Your task to perform on an android device: What's on my calendar tomorrow? Image 0: 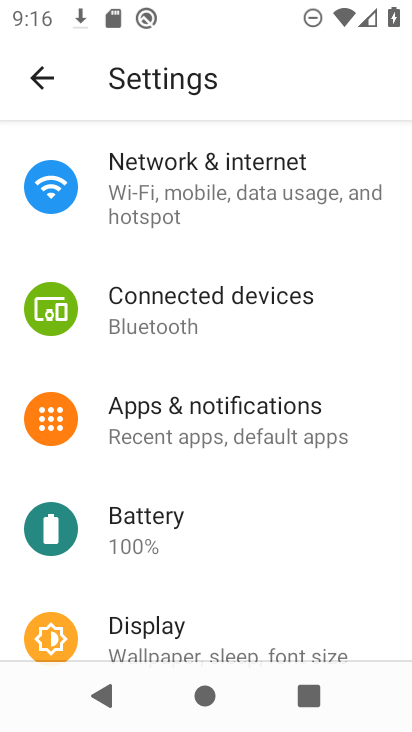
Step 0: press home button
Your task to perform on an android device: What's on my calendar tomorrow? Image 1: 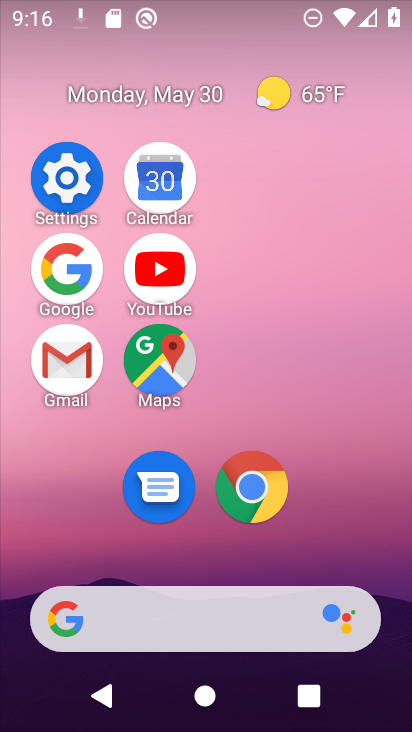
Step 1: click (151, 195)
Your task to perform on an android device: What's on my calendar tomorrow? Image 2: 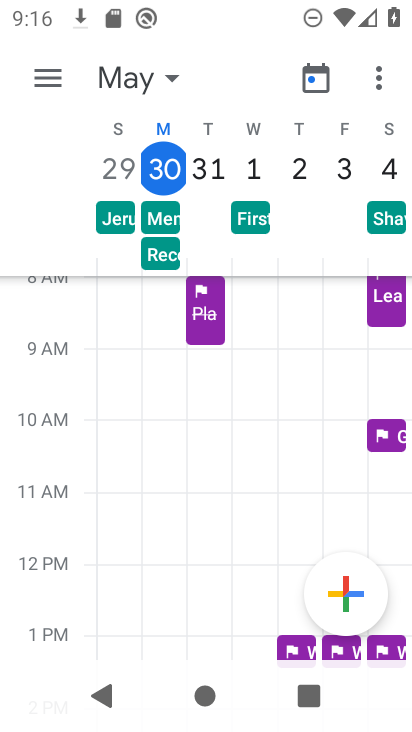
Step 2: click (215, 184)
Your task to perform on an android device: What's on my calendar tomorrow? Image 3: 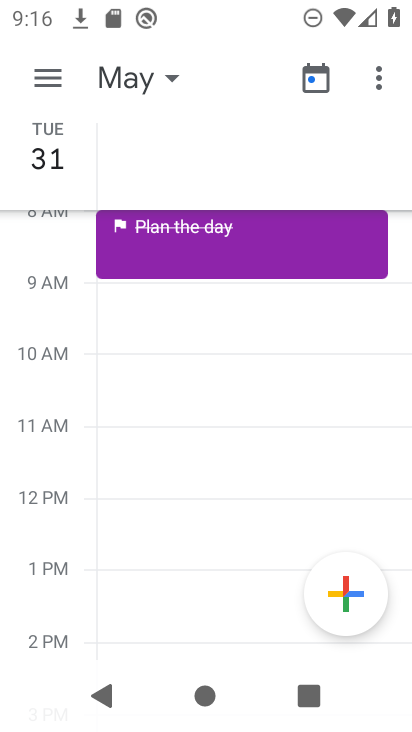
Step 3: task complete